Your task to perform on an android device: Open maps Image 0: 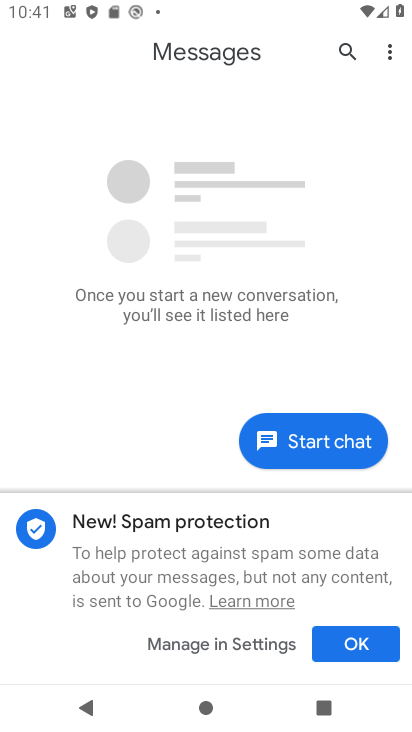
Step 0: press home button
Your task to perform on an android device: Open maps Image 1: 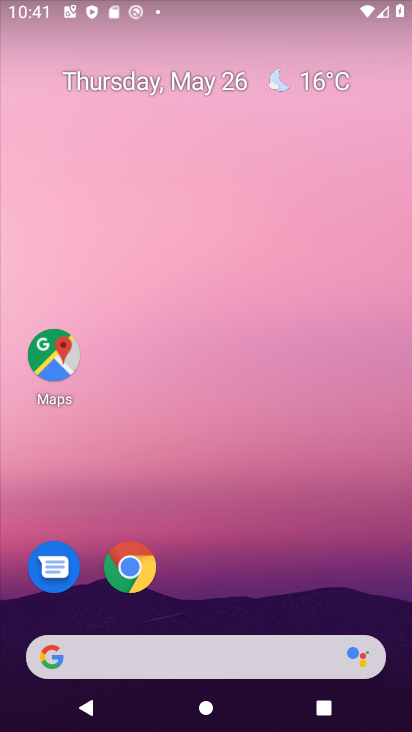
Step 1: click (55, 348)
Your task to perform on an android device: Open maps Image 2: 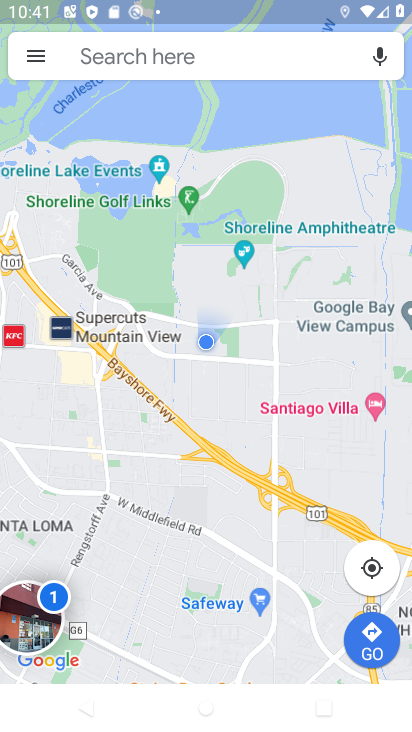
Step 2: task complete